Your task to perform on an android device: Search for acer predator on newegg, select the first entry, add it to the cart, then select checkout. Image 0: 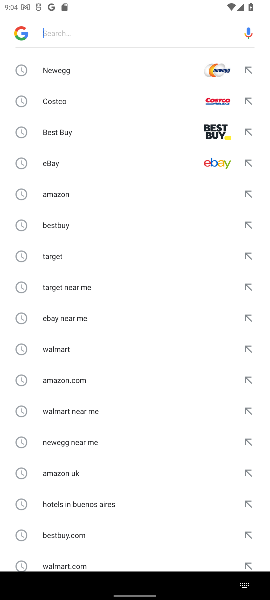
Step 0: press home button
Your task to perform on an android device: Search for acer predator on newegg, select the first entry, add it to the cart, then select checkout. Image 1: 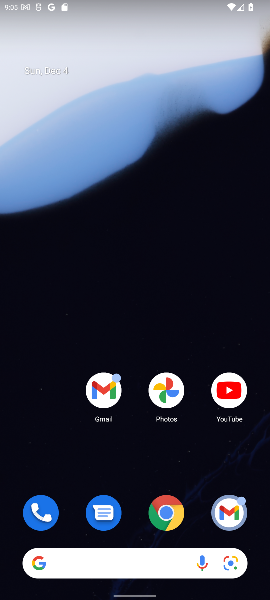
Step 1: click (166, 514)
Your task to perform on an android device: Search for acer predator on newegg, select the first entry, add it to the cart, then select checkout. Image 2: 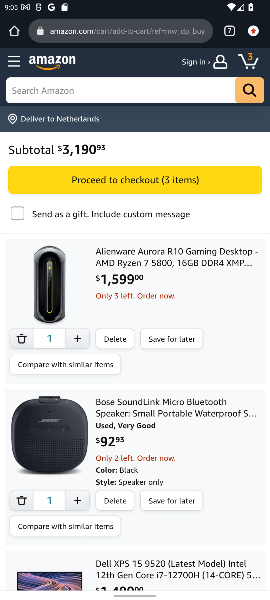
Step 2: click (231, 30)
Your task to perform on an android device: Search for acer predator on newegg, select the first entry, add it to the cart, then select checkout. Image 3: 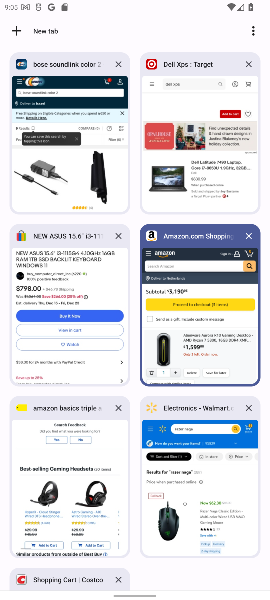
Step 3: click (67, 150)
Your task to perform on an android device: Search for acer predator on newegg, select the first entry, add it to the cart, then select checkout. Image 4: 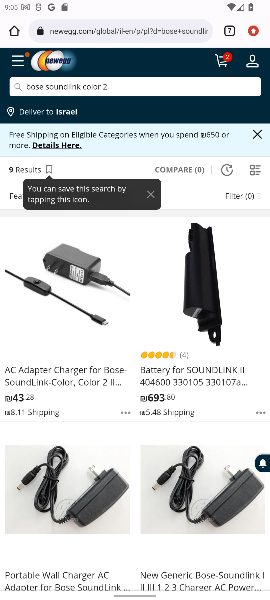
Step 4: click (130, 88)
Your task to perform on an android device: Search for acer predator on newegg, select the first entry, add it to the cart, then select checkout. Image 5: 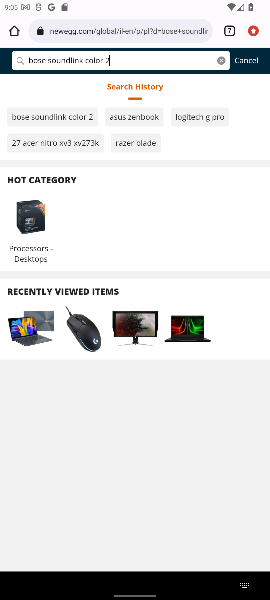
Step 5: click (223, 60)
Your task to perform on an android device: Search for acer predator on newegg, select the first entry, add it to the cart, then select checkout. Image 6: 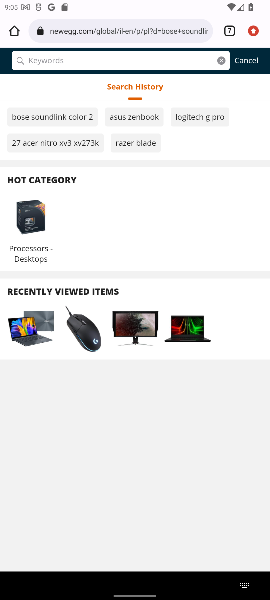
Step 6: type "acer predator"
Your task to perform on an android device: Search for acer predator on newegg, select the first entry, add it to the cart, then select checkout. Image 7: 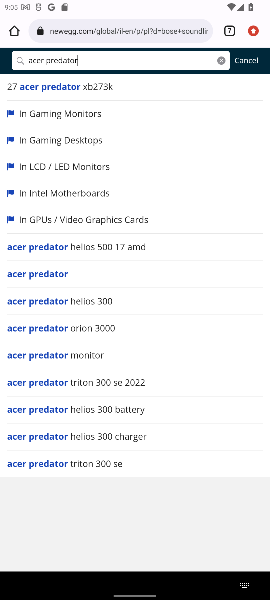
Step 7: click (45, 275)
Your task to perform on an android device: Search for acer predator on newegg, select the first entry, add it to the cart, then select checkout. Image 8: 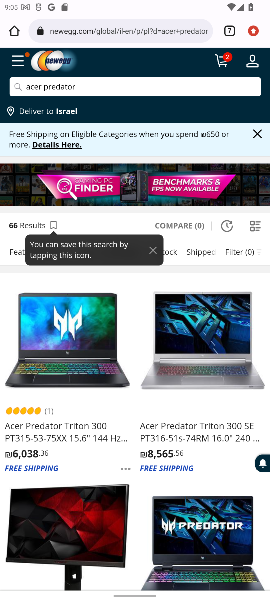
Step 8: click (49, 429)
Your task to perform on an android device: Search for acer predator on newegg, select the first entry, add it to the cart, then select checkout. Image 9: 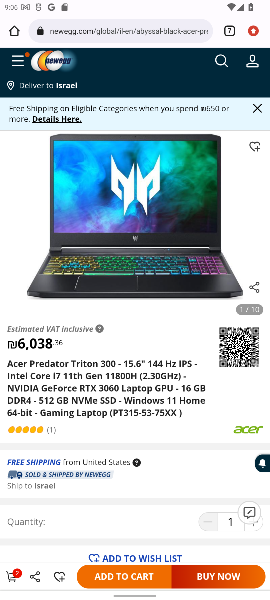
Step 9: click (133, 578)
Your task to perform on an android device: Search for acer predator on newegg, select the first entry, add it to the cart, then select checkout. Image 10: 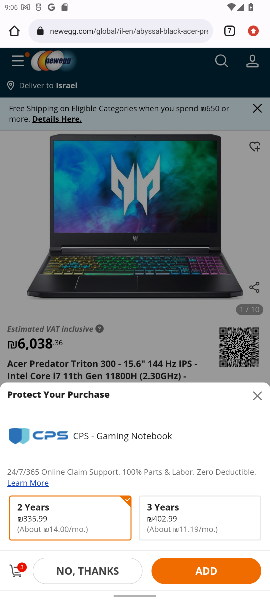
Step 10: click (85, 569)
Your task to perform on an android device: Search for acer predator on newegg, select the first entry, add it to the cart, then select checkout. Image 11: 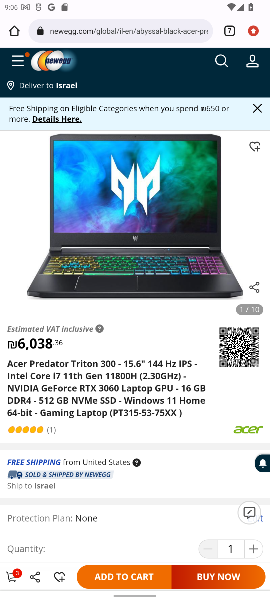
Step 11: click (12, 570)
Your task to perform on an android device: Search for acer predator on newegg, select the first entry, add it to the cart, then select checkout. Image 12: 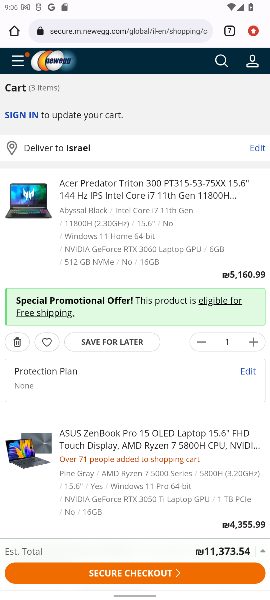
Step 12: click (101, 569)
Your task to perform on an android device: Search for acer predator on newegg, select the first entry, add it to the cart, then select checkout. Image 13: 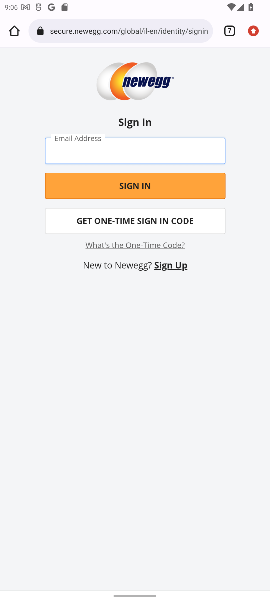
Step 13: task complete